Your task to perform on an android device: set an alarm Image 0: 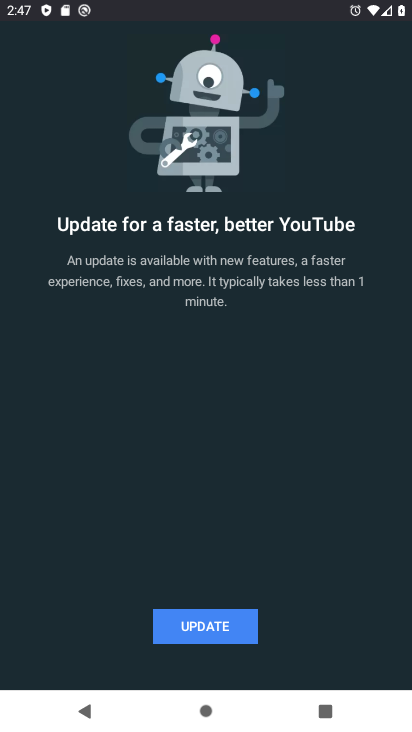
Step 0: press home button
Your task to perform on an android device: set an alarm Image 1: 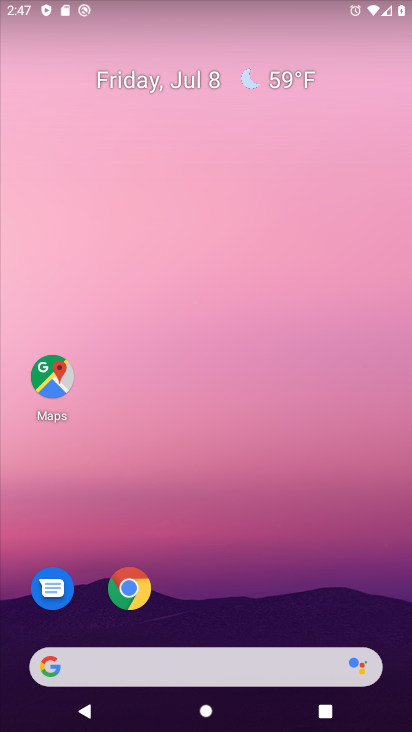
Step 1: drag from (233, 586) to (274, 86)
Your task to perform on an android device: set an alarm Image 2: 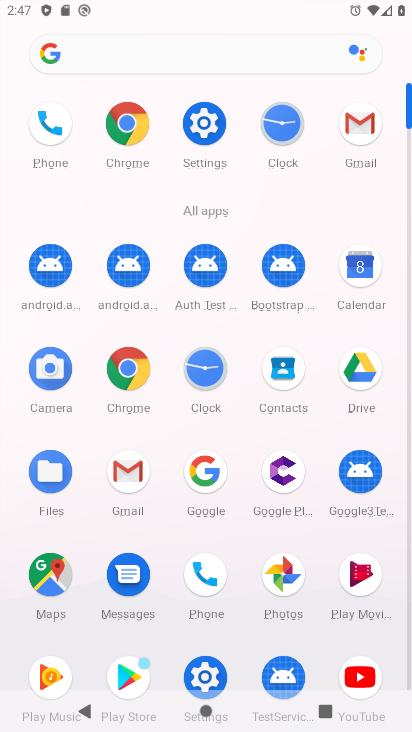
Step 2: click (208, 369)
Your task to perform on an android device: set an alarm Image 3: 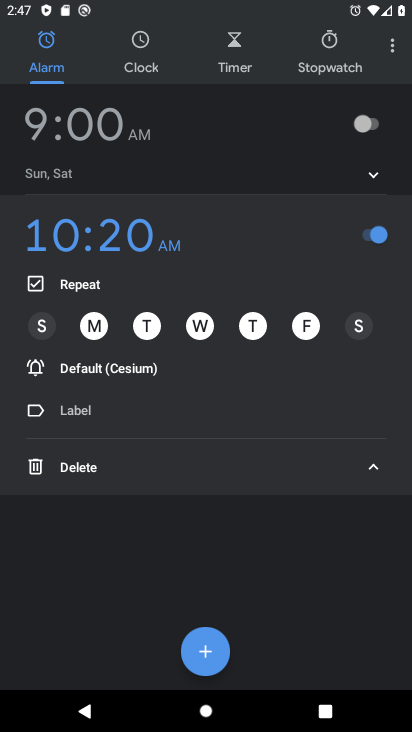
Step 3: click (377, 116)
Your task to perform on an android device: set an alarm Image 4: 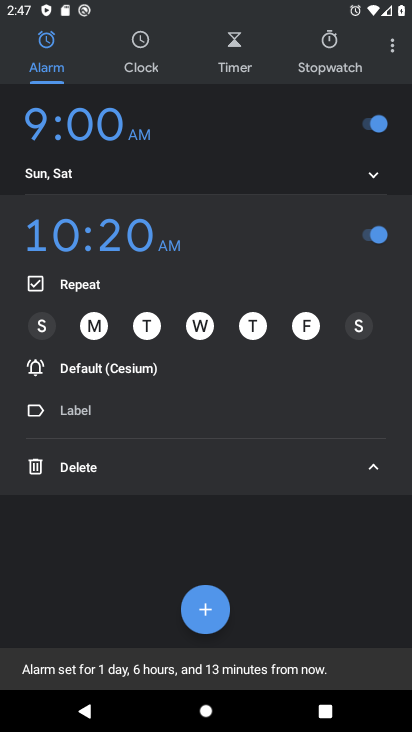
Step 4: click (91, 133)
Your task to perform on an android device: set an alarm Image 5: 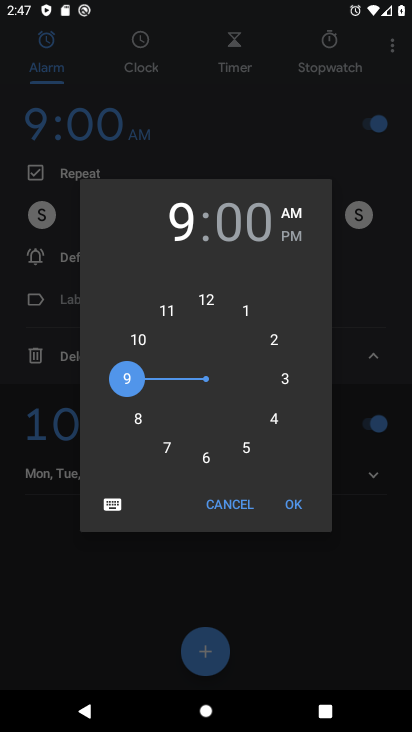
Step 5: click (172, 314)
Your task to perform on an android device: set an alarm Image 6: 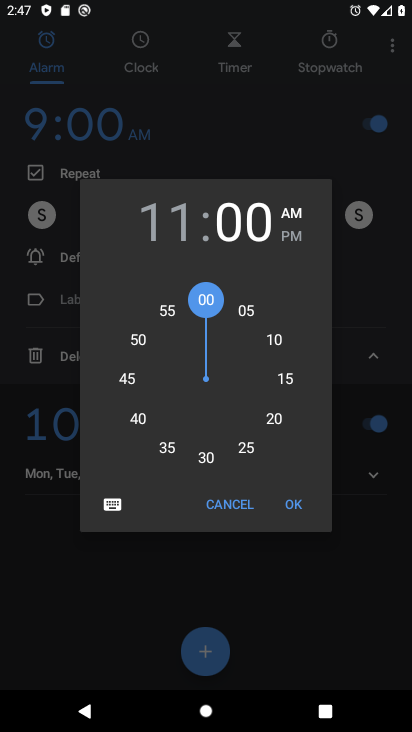
Step 6: click (214, 459)
Your task to perform on an android device: set an alarm Image 7: 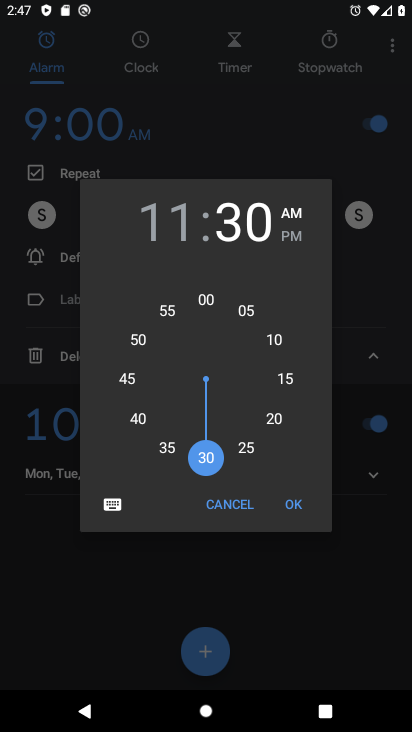
Step 7: click (291, 240)
Your task to perform on an android device: set an alarm Image 8: 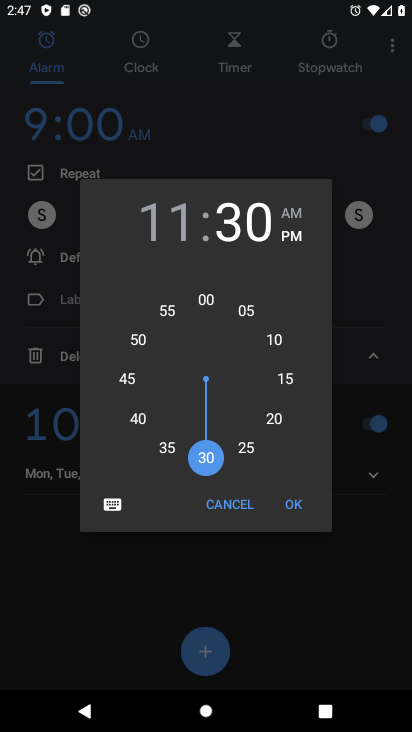
Step 8: click (300, 500)
Your task to perform on an android device: set an alarm Image 9: 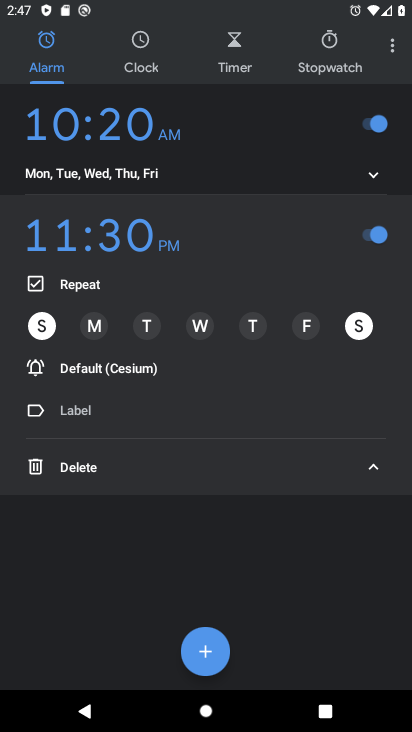
Step 9: task complete